Your task to perform on an android device: Go to Reddit.com Image 0: 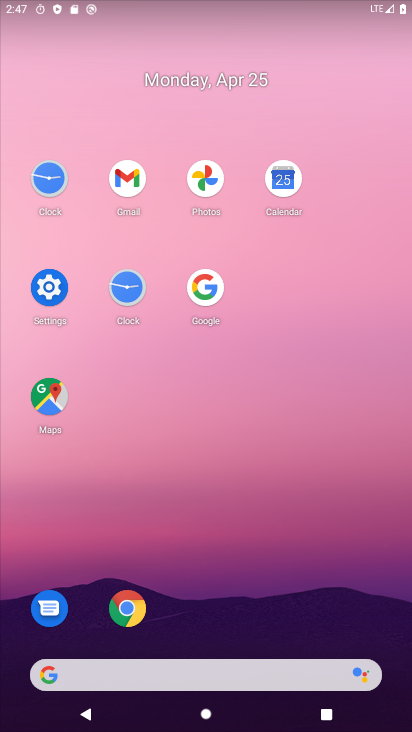
Step 0: click (123, 600)
Your task to perform on an android device: Go to Reddit.com Image 1: 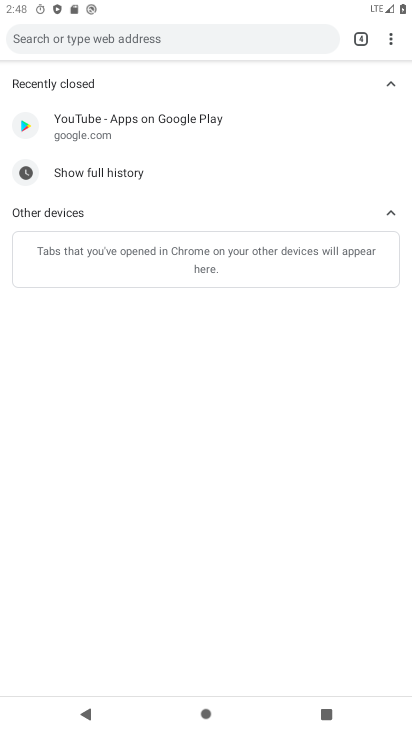
Step 1: press home button
Your task to perform on an android device: Go to Reddit.com Image 2: 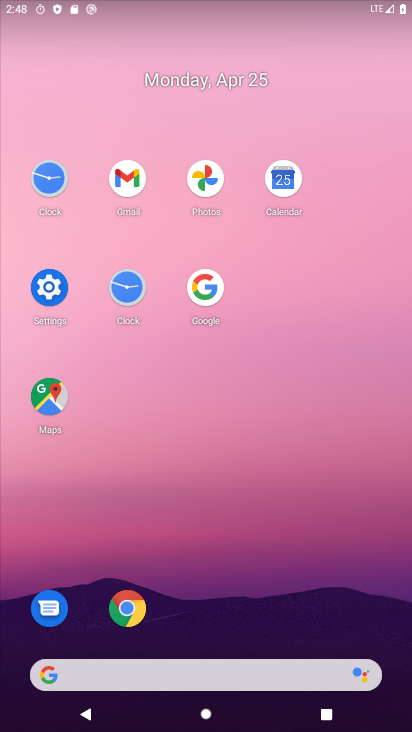
Step 2: click (132, 609)
Your task to perform on an android device: Go to Reddit.com Image 3: 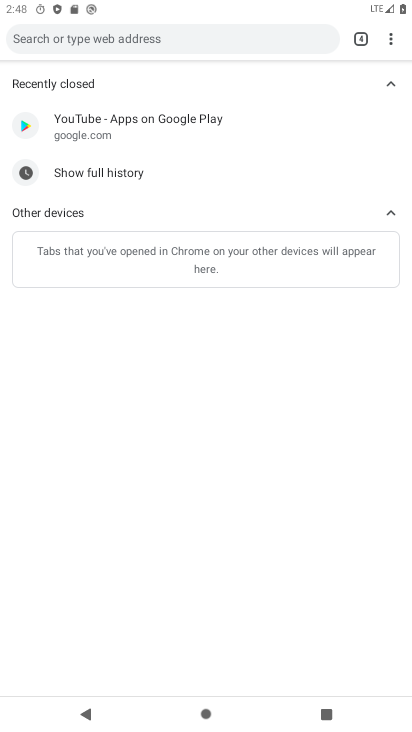
Step 3: click (170, 35)
Your task to perform on an android device: Go to Reddit.com Image 4: 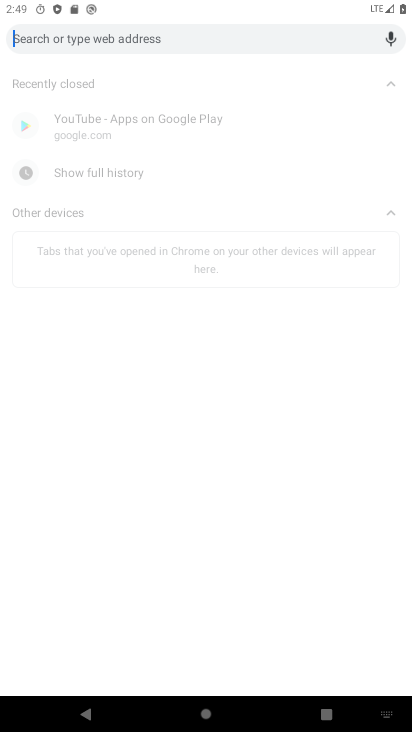
Step 4: type ""
Your task to perform on an android device: Go to Reddit.com Image 5: 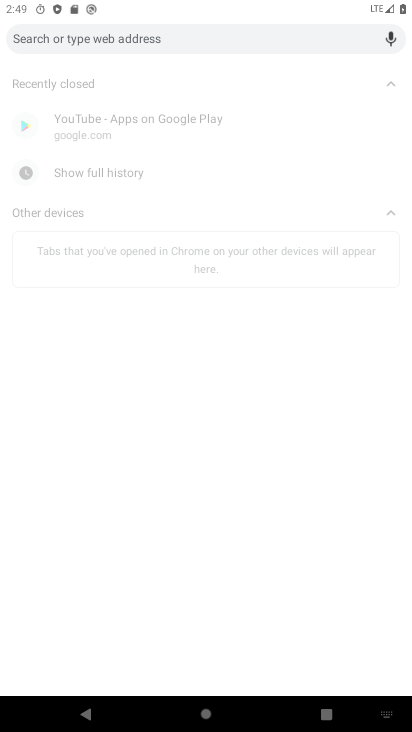
Step 5: type "reddit"
Your task to perform on an android device: Go to Reddit.com Image 6: 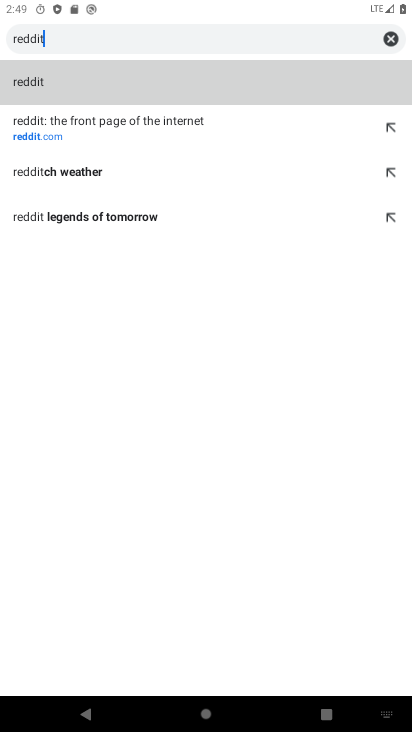
Step 6: click (40, 135)
Your task to perform on an android device: Go to Reddit.com Image 7: 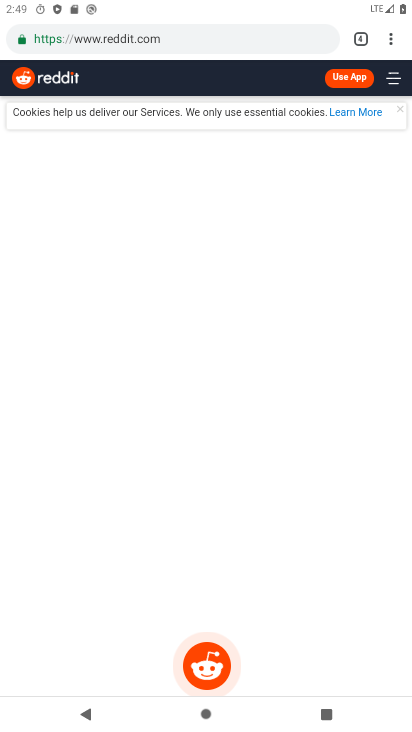
Step 7: task complete